Your task to perform on an android device: What's the weather going to be this weekend? Image 0: 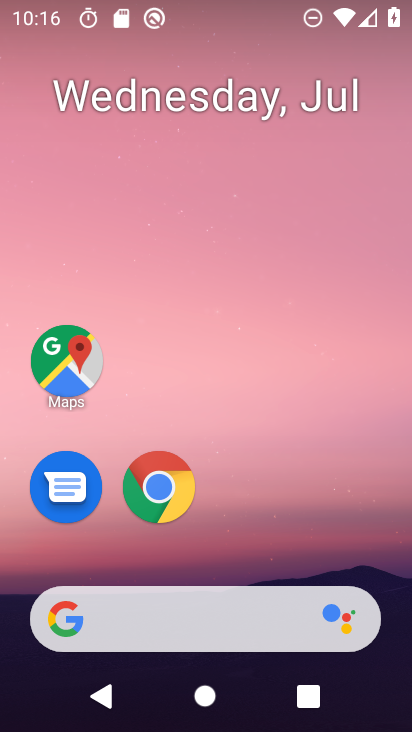
Step 0: click (215, 613)
Your task to perform on an android device: What's the weather going to be this weekend? Image 1: 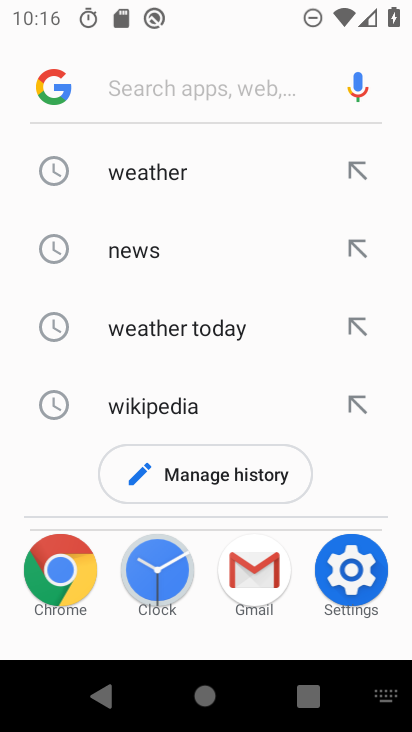
Step 1: click (207, 169)
Your task to perform on an android device: What's the weather going to be this weekend? Image 2: 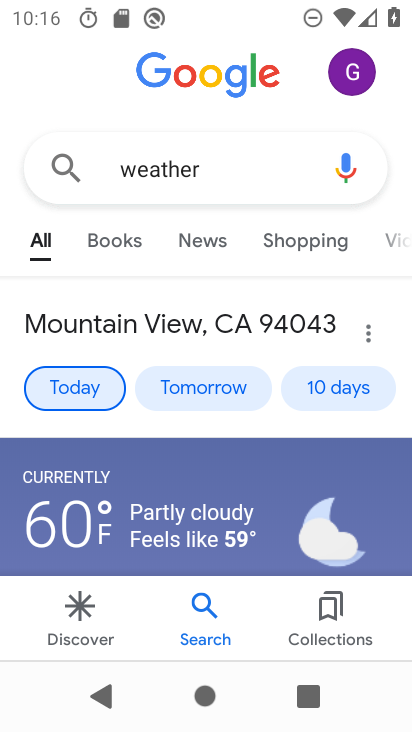
Step 2: click (352, 387)
Your task to perform on an android device: What's the weather going to be this weekend? Image 3: 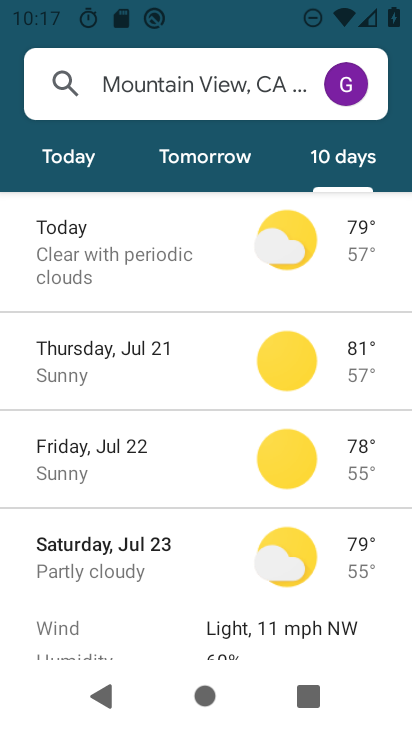
Step 3: task complete